Your task to perform on an android device: see sites visited before in the chrome app Image 0: 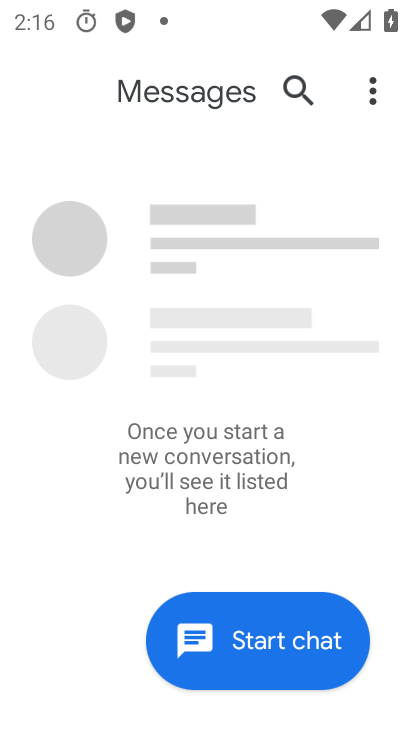
Step 0: press home button
Your task to perform on an android device: see sites visited before in the chrome app Image 1: 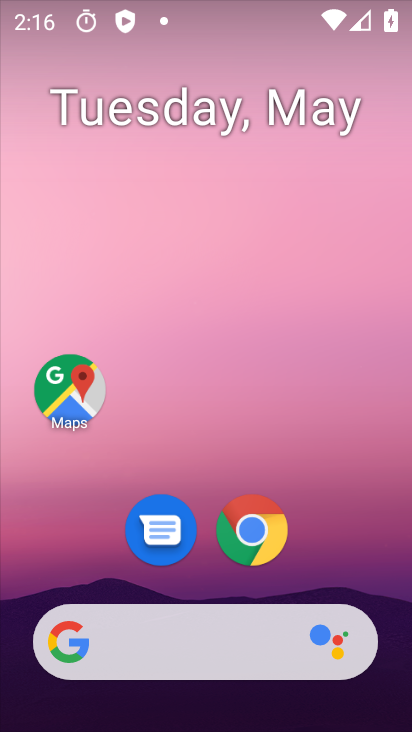
Step 1: click (254, 535)
Your task to perform on an android device: see sites visited before in the chrome app Image 2: 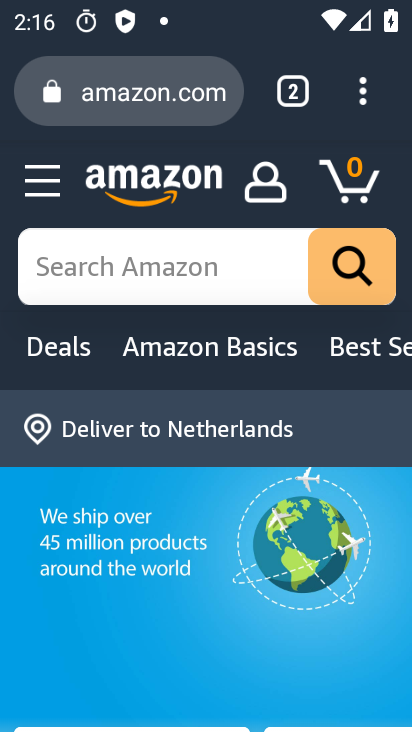
Step 2: click (350, 86)
Your task to perform on an android device: see sites visited before in the chrome app Image 3: 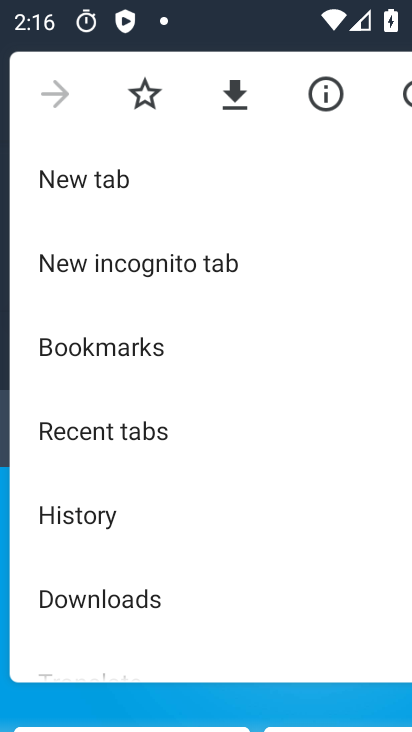
Step 3: click (103, 514)
Your task to perform on an android device: see sites visited before in the chrome app Image 4: 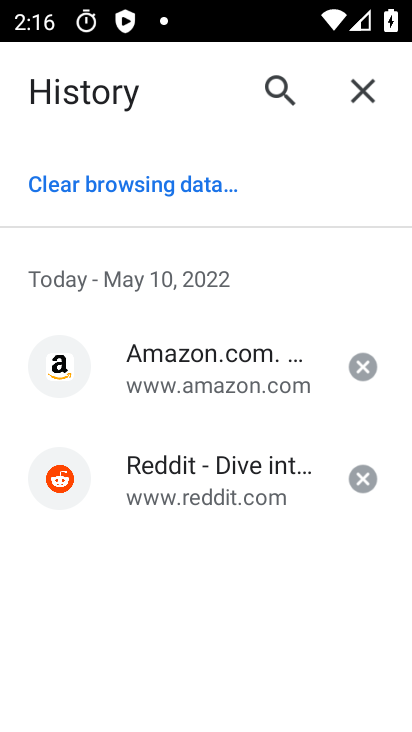
Step 4: task complete